Your task to perform on an android device: set an alarm Image 0: 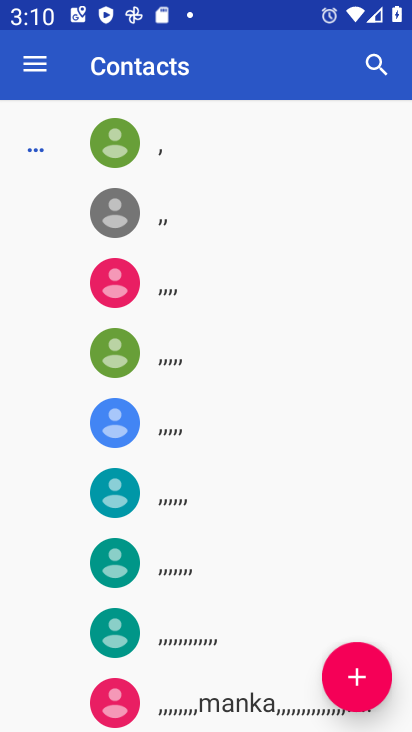
Step 0: press home button
Your task to perform on an android device: set an alarm Image 1: 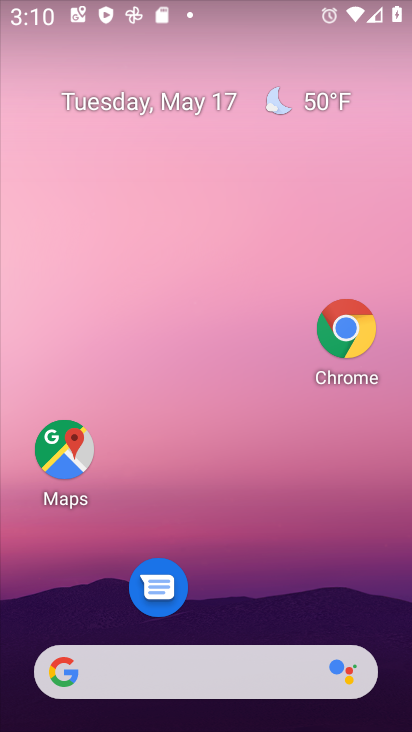
Step 1: drag from (206, 624) to (254, 66)
Your task to perform on an android device: set an alarm Image 2: 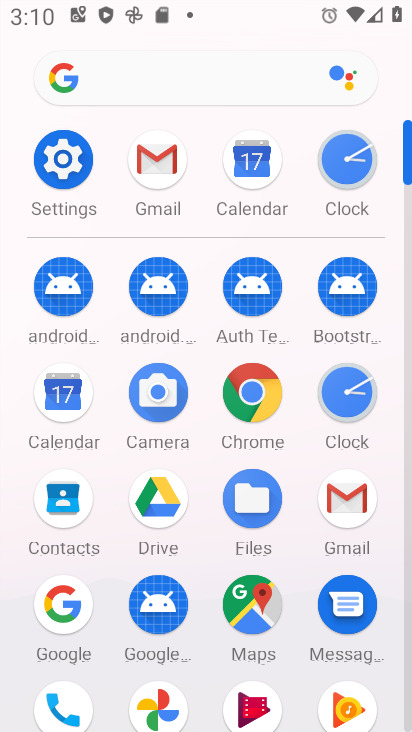
Step 2: click (346, 182)
Your task to perform on an android device: set an alarm Image 3: 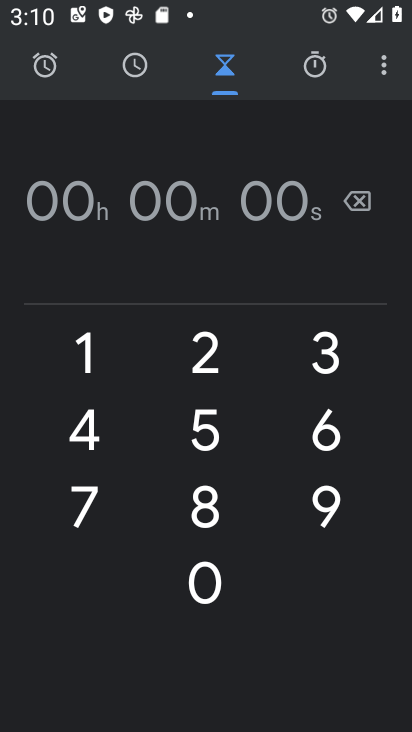
Step 3: click (35, 84)
Your task to perform on an android device: set an alarm Image 4: 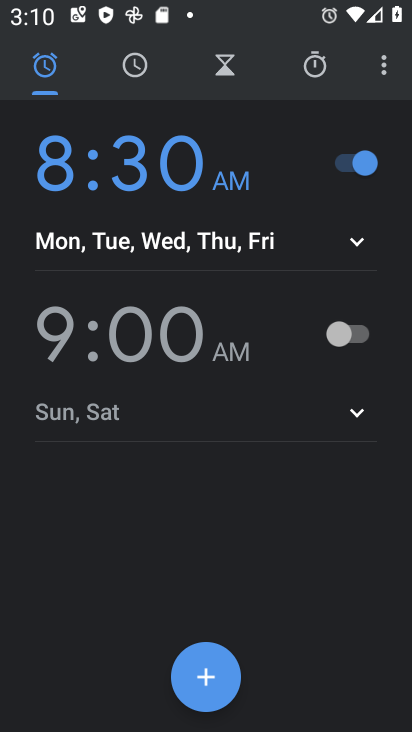
Step 4: task complete